Your task to perform on an android device: Clear all items from cart on target. Add "acer nitro" to the cart on target, then select checkout. Image 0: 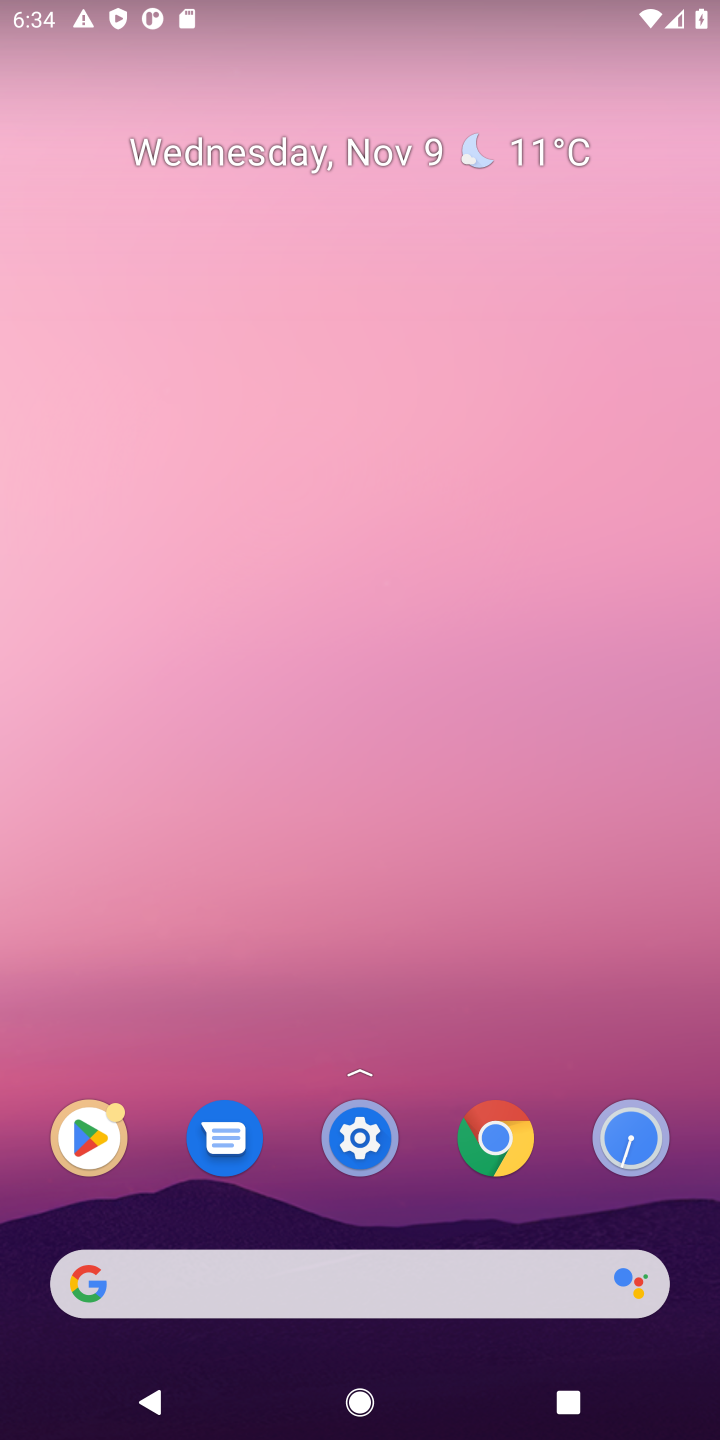
Step 0: drag from (267, 1234) to (269, 246)
Your task to perform on an android device: Clear all items from cart on target. Add "acer nitro" to the cart on target, then select checkout. Image 1: 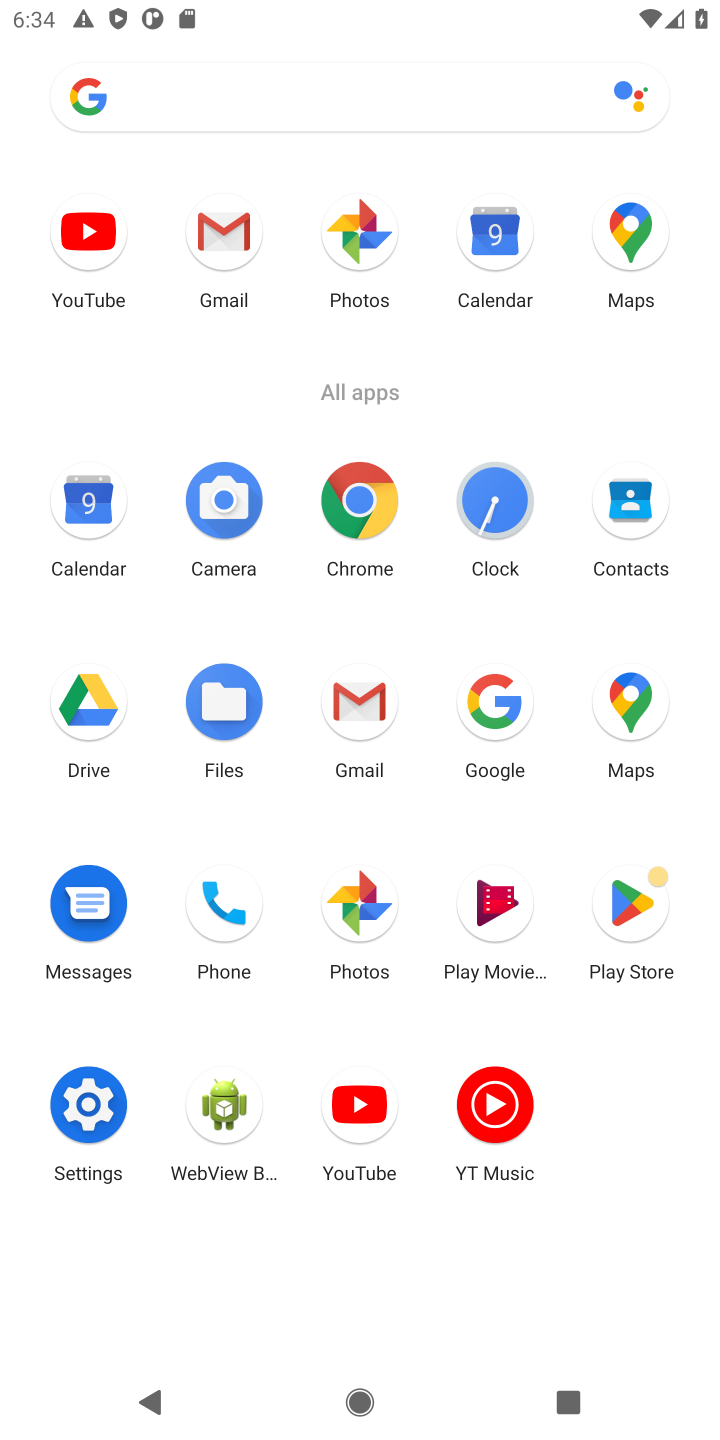
Step 1: click (376, 515)
Your task to perform on an android device: Clear all items from cart on target. Add "acer nitro" to the cart on target, then select checkout. Image 2: 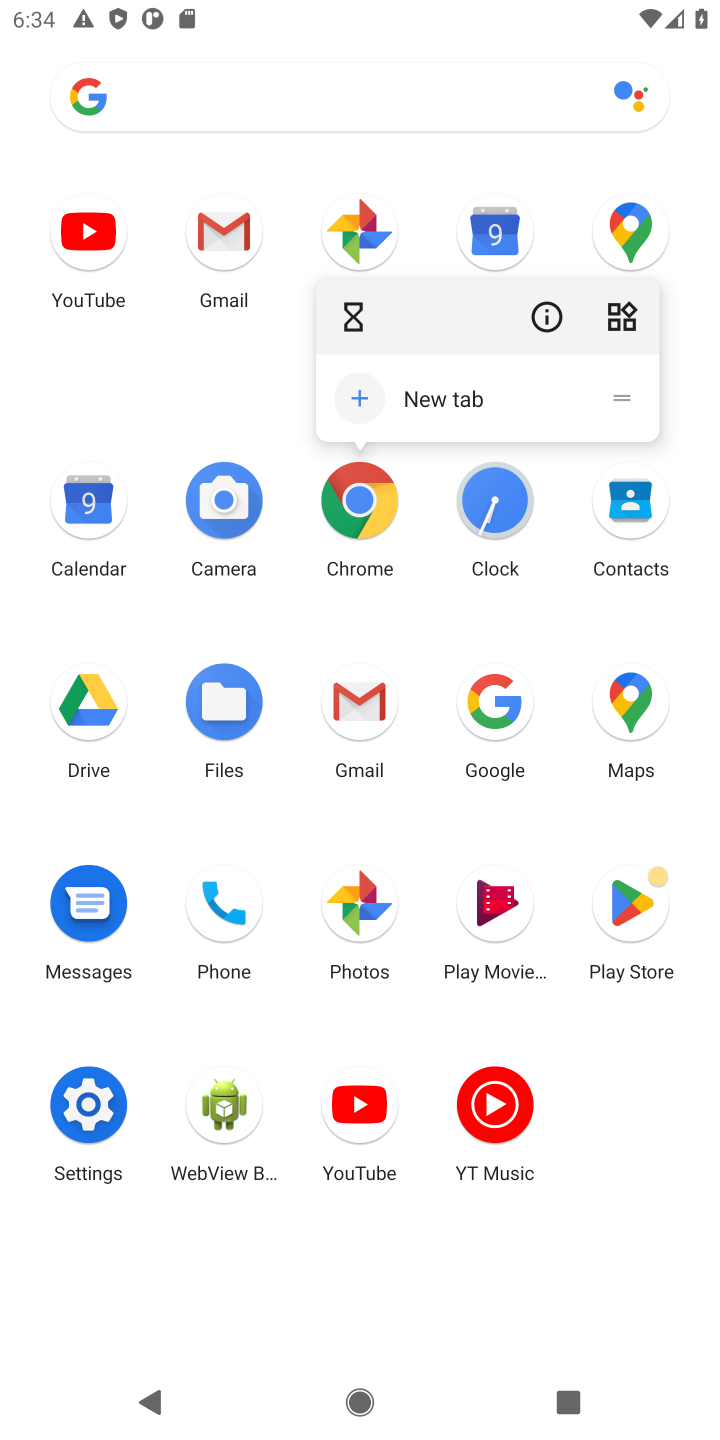
Step 2: click (376, 515)
Your task to perform on an android device: Clear all items from cart on target. Add "acer nitro" to the cart on target, then select checkout. Image 3: 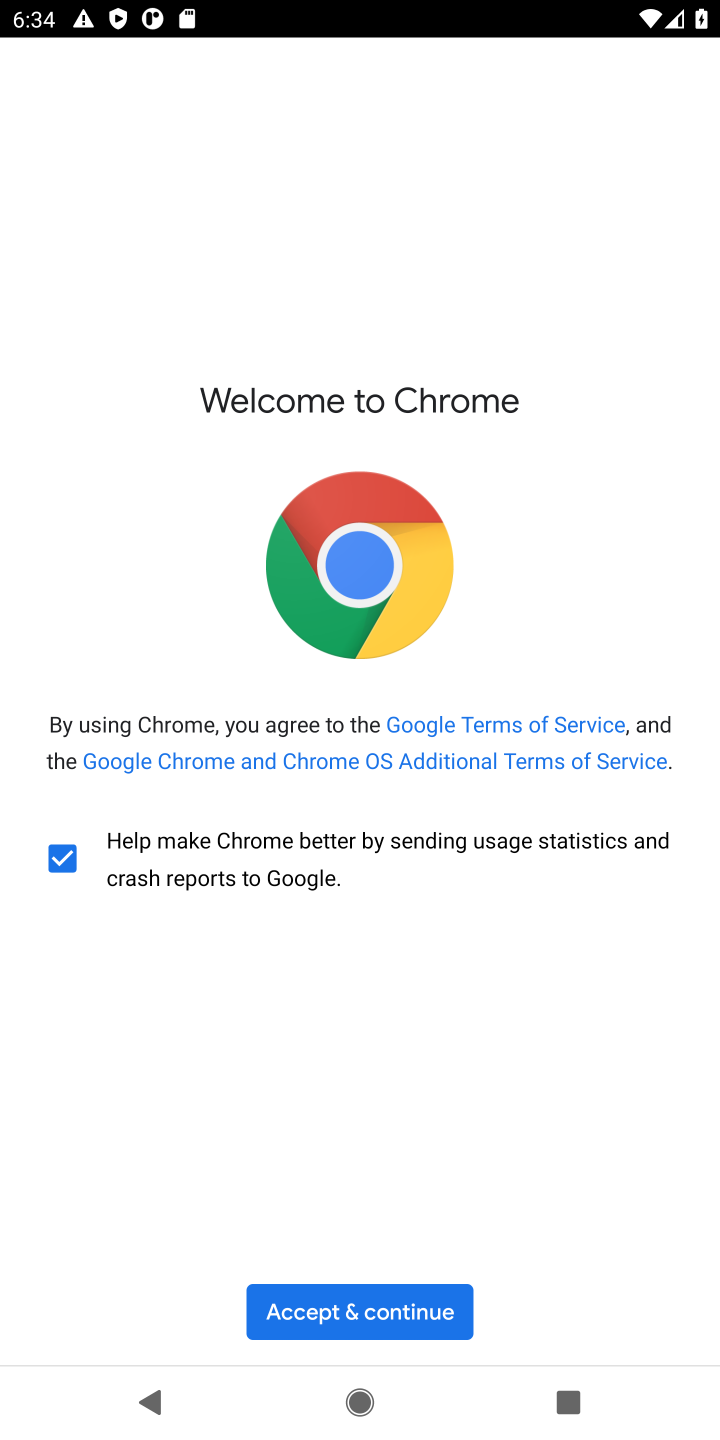
Step 3: click (396, 1314)
Your task to perform on an android device: Clear all items from cart on target. Add "acer nitro" to the cart on target, then select checkout. Image 4: 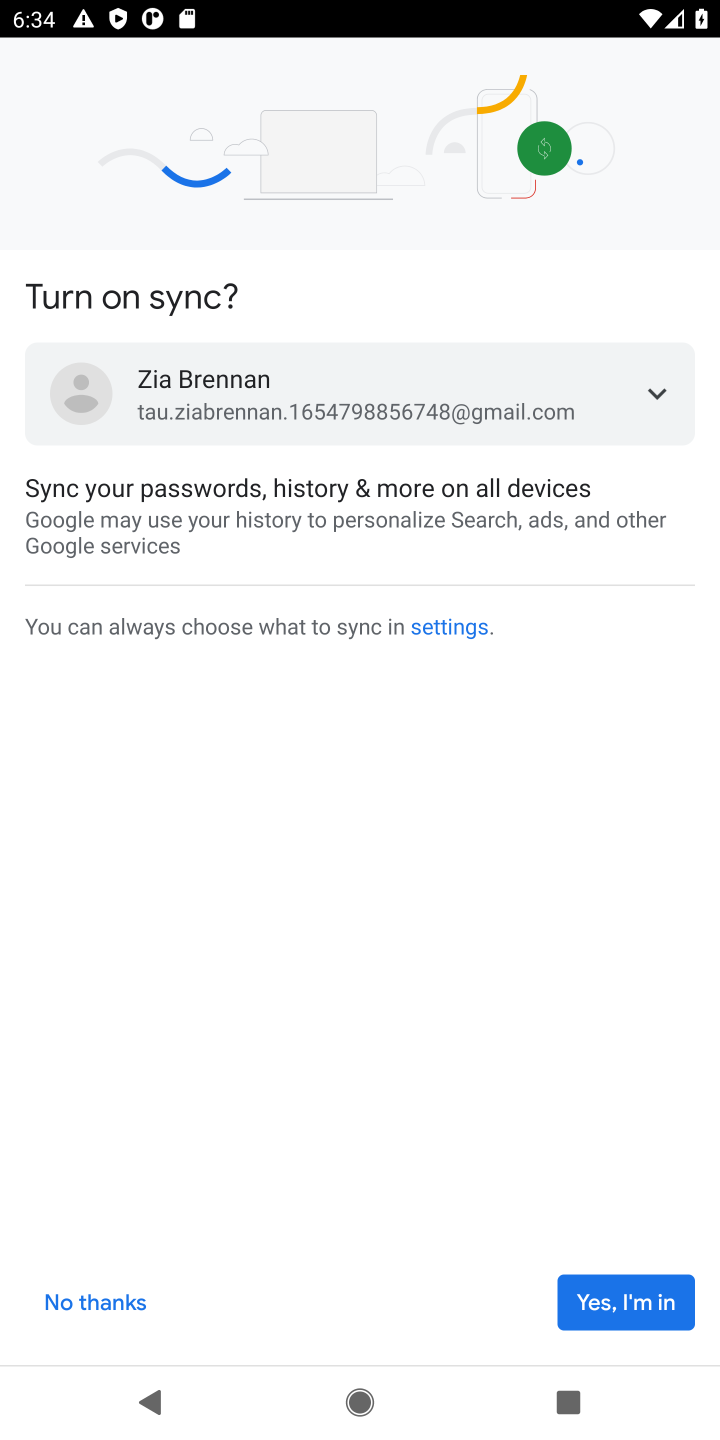
Step 4: click (629, 1288)
Your task to perform on an android device: Clear all items from cart on target. Add "acer nitro" to the cart on target, then select checkout. Image 5: 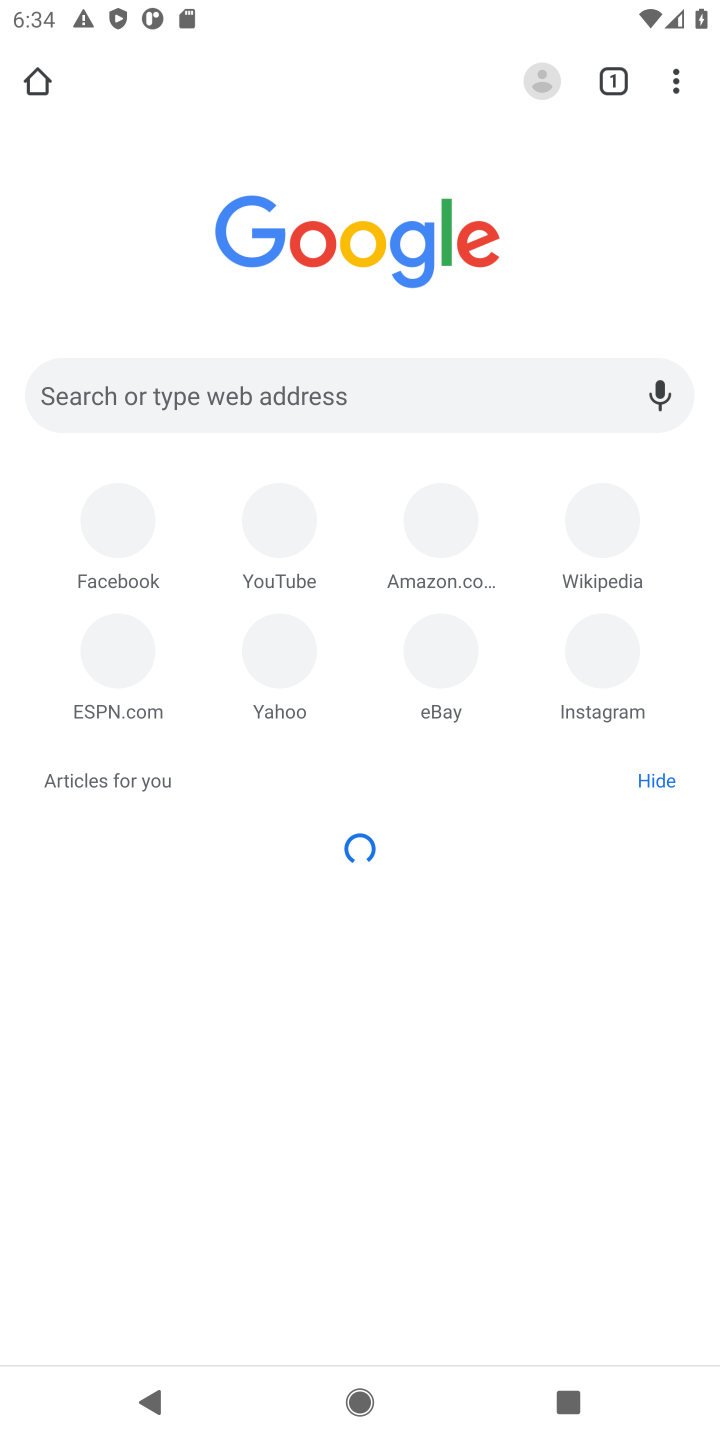
Step 5: click (186, 394)
Your task to perform on an android device: Clear all items from cart on target. Add "acer nitro" to the cart on target, then select checkout. Image 6: 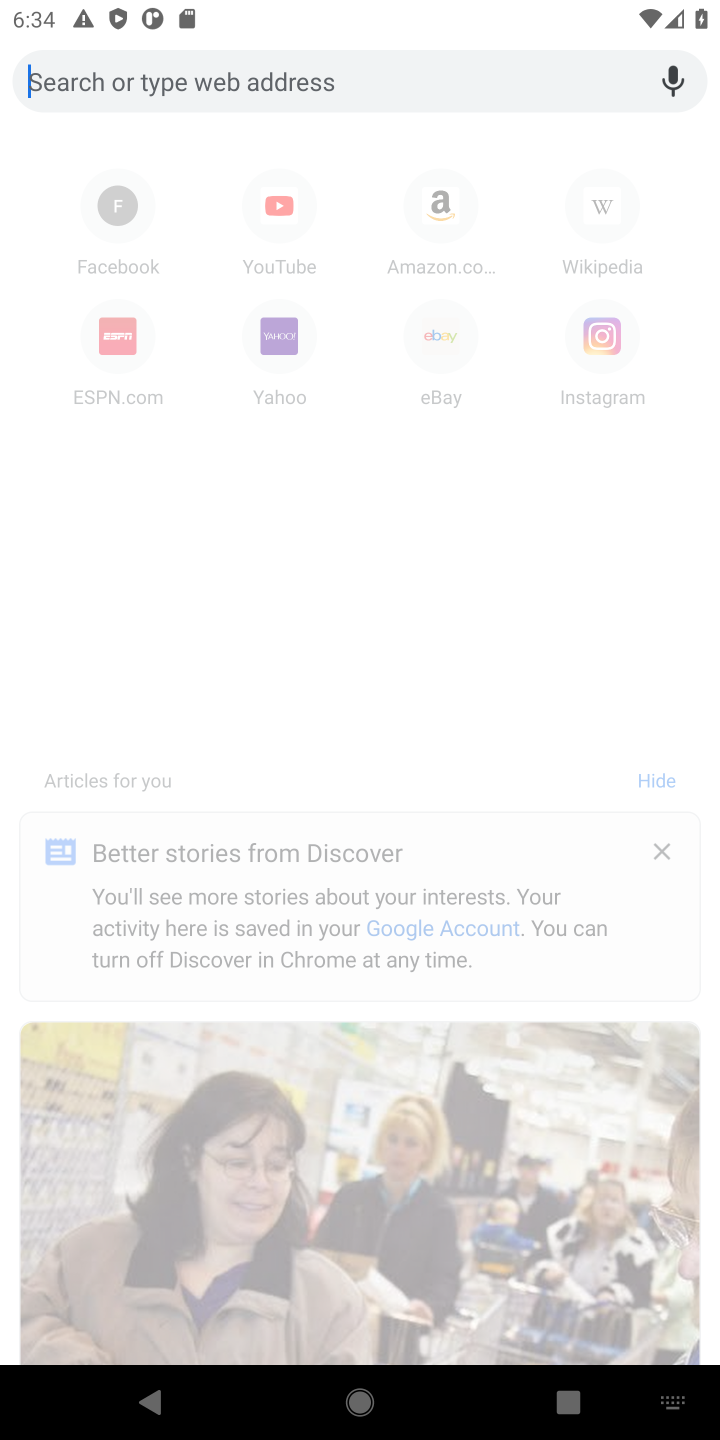
Step 6: type "target"
Your task to perform on an android device: Clear all items from cart on target. Add "acer nitro" to the cart on target, then select checkout. Image 7: 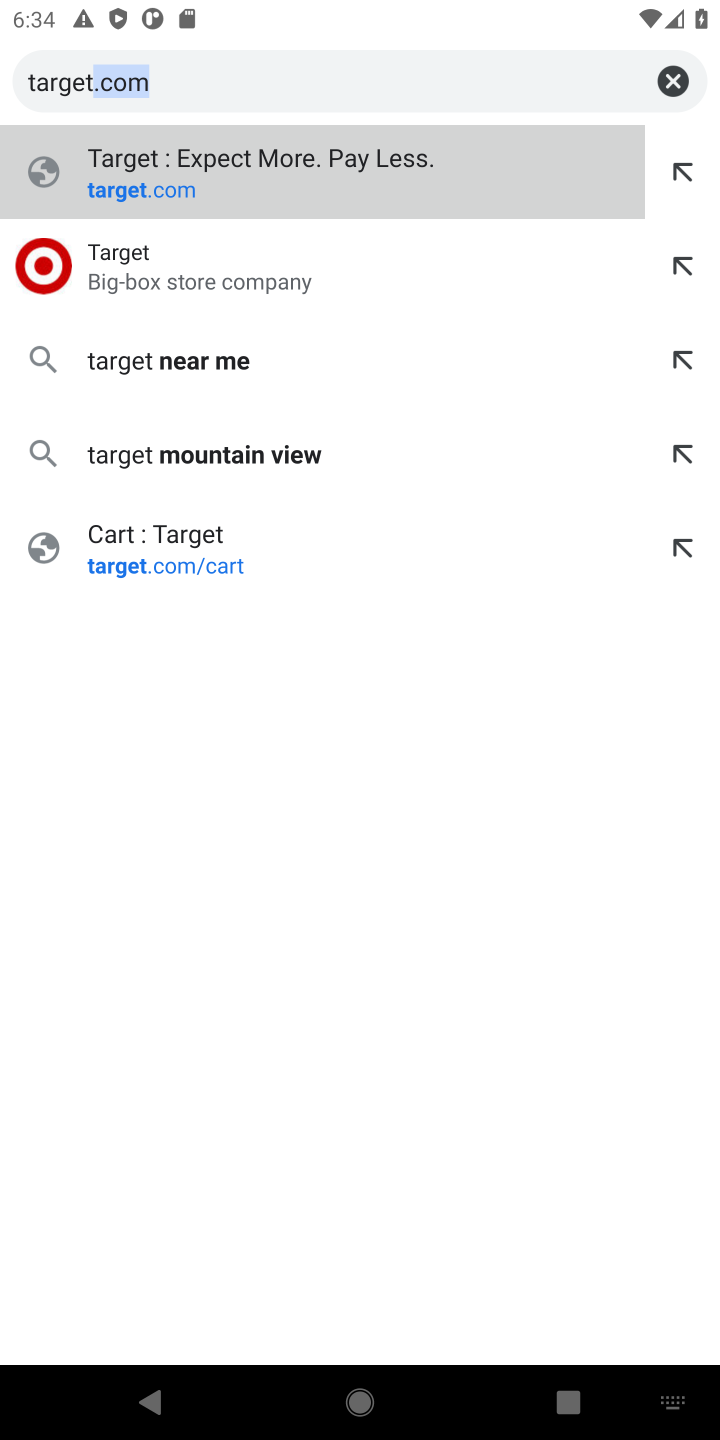
Step 7: press enter
Your task to perform on an android device: Clear all items from cart on target. Add "acer nitro" to the cart on target, then select checkout. Image 8: 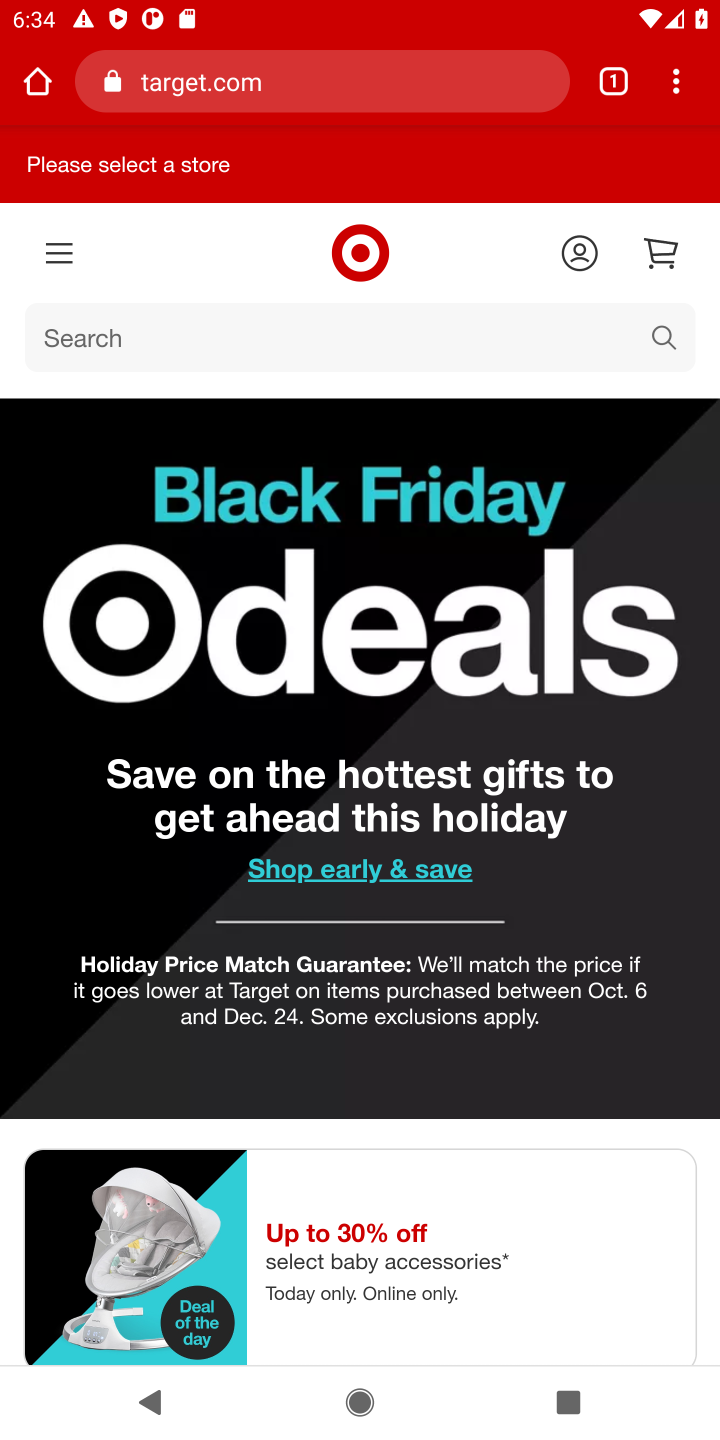
Step 8: click (147, 320)
Your task to perform on an android device: Clear all items from cart on target. Add "acer nitro" to the cart on target, then select checkout. Image 9: 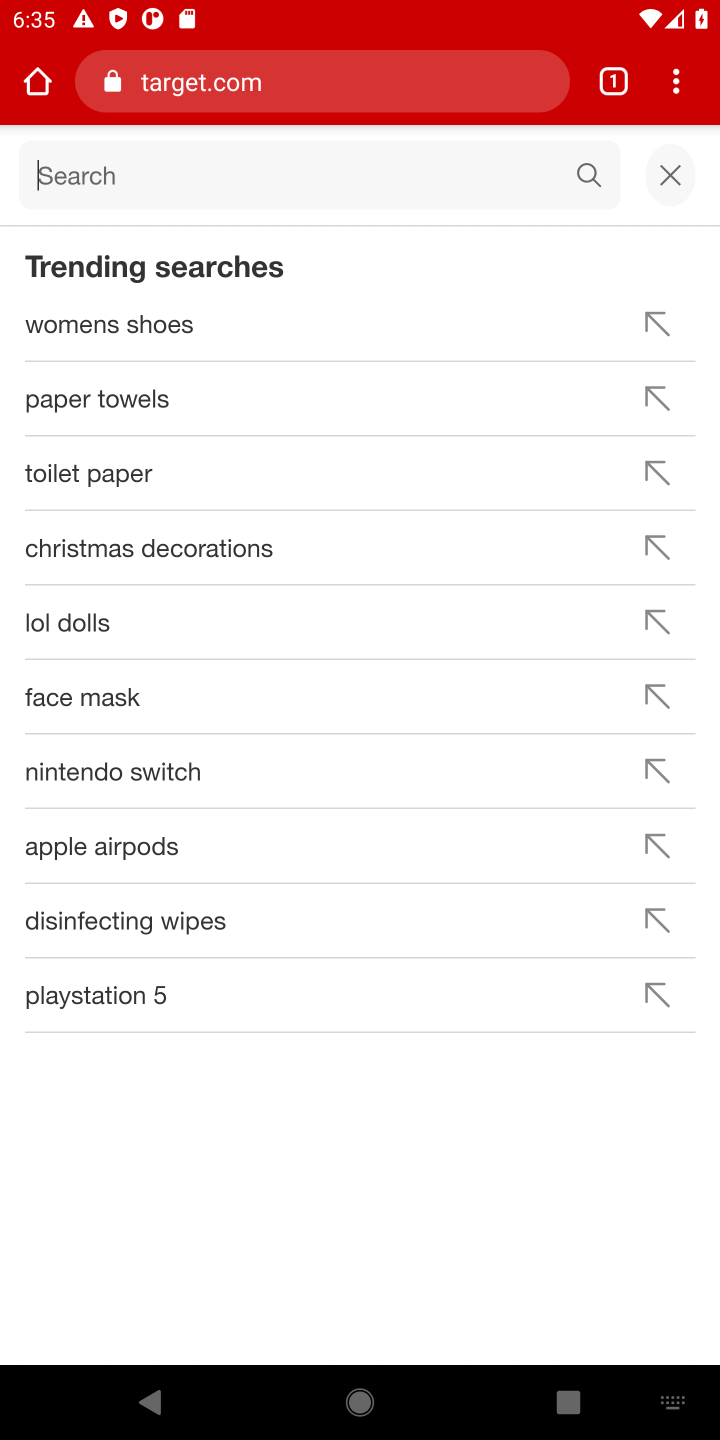
Step 9: type "acer nitro"
Your task to perform on an android device: Clear all items from cart on target. Add "acer nitro" to the cart on target, then select checkout. Image 10: 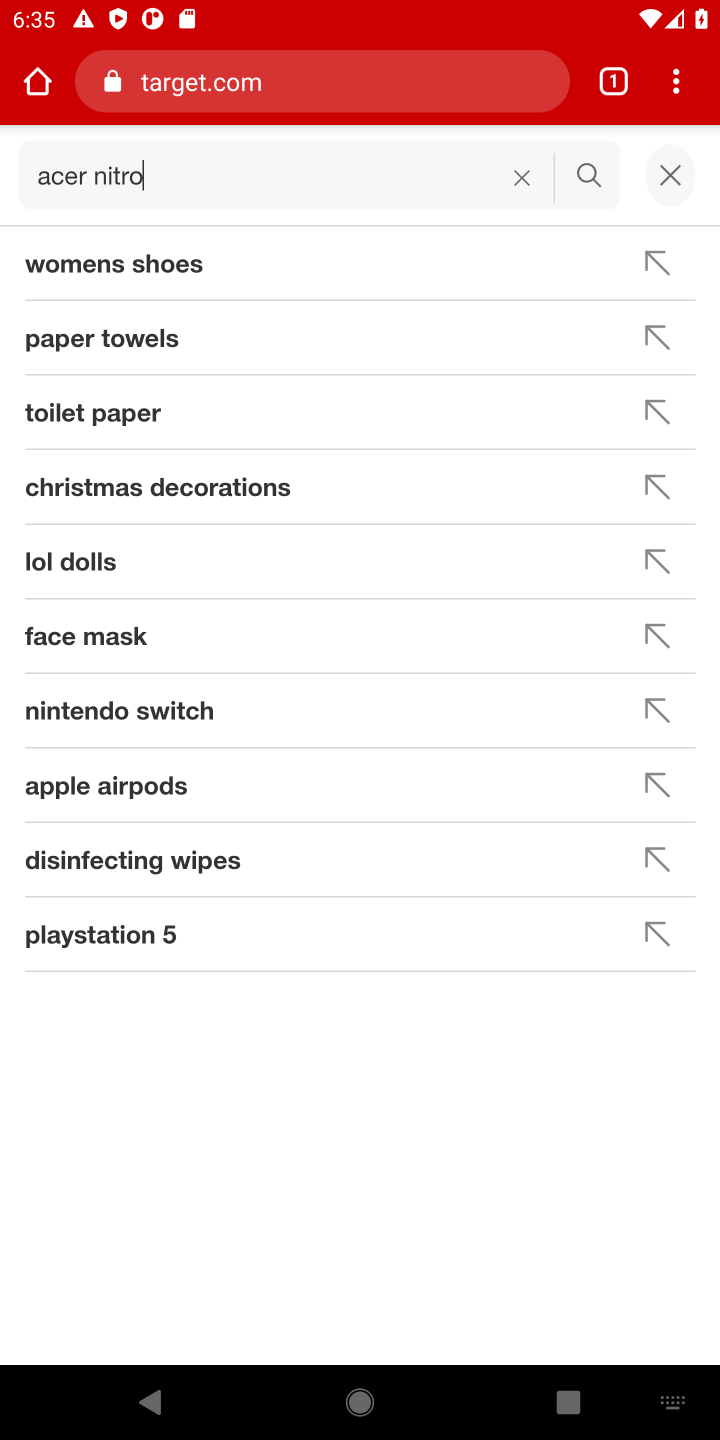
Step 10: press enter
Your task to perform on an android device: Clear all items from cart on target. Add "acer nitro" to the cart on target, then select checkout. Image 11: 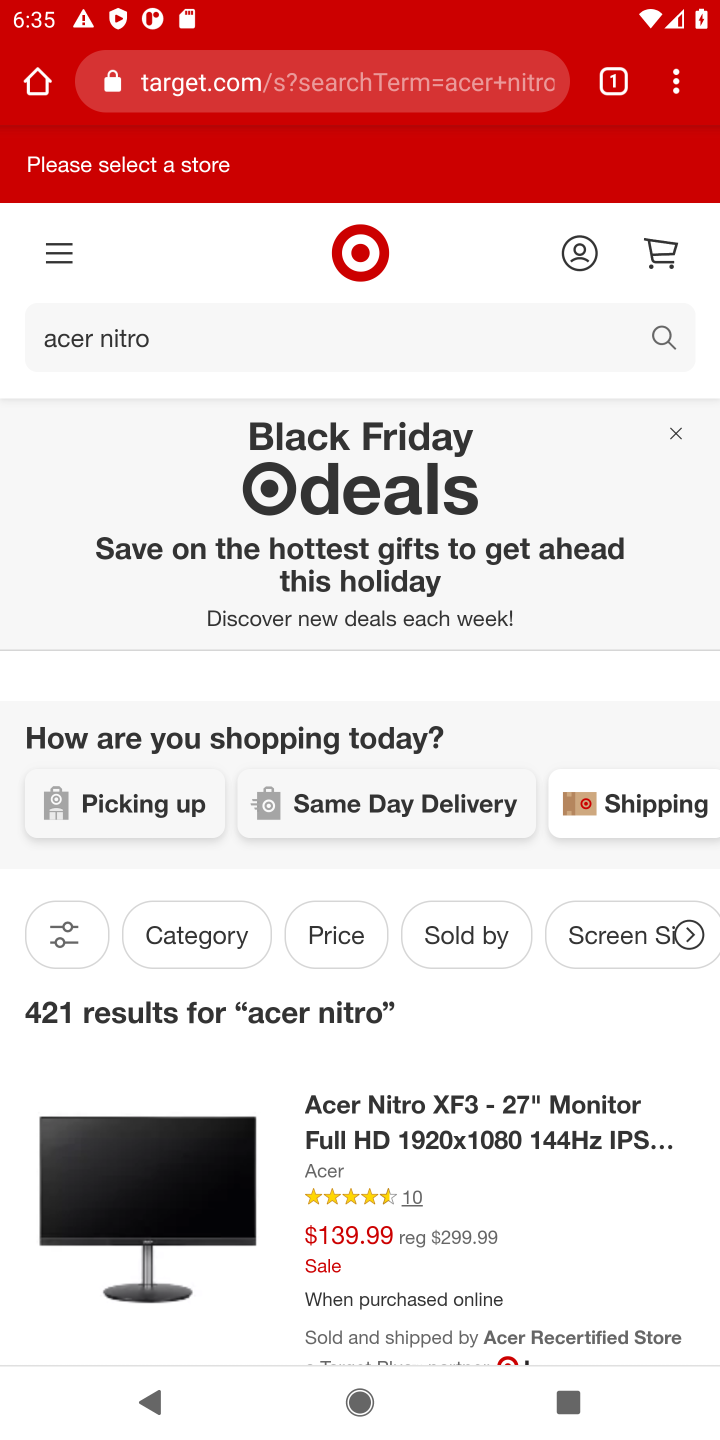
Step 11: drag from (490, 954) to (606, 399)
Your task to perform on an android device: Clear all items from cart on target. Add "acer nitro" to the cart on target, then select checkout. Image 12: 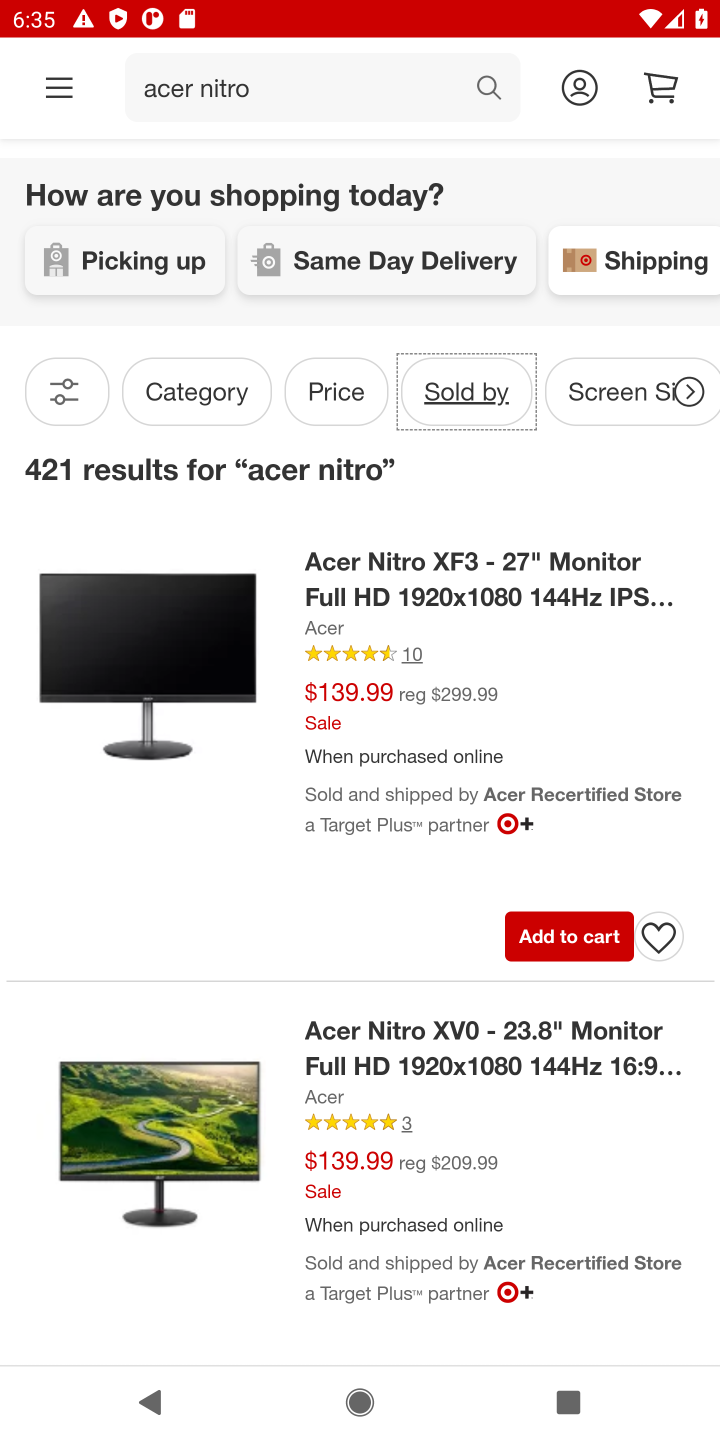
Step 12: click (392, 574)
Your task to perform on an android device: Clear all items from cart on target. Add "acer nitro" to the cart on target, then select checkout. Image 13: 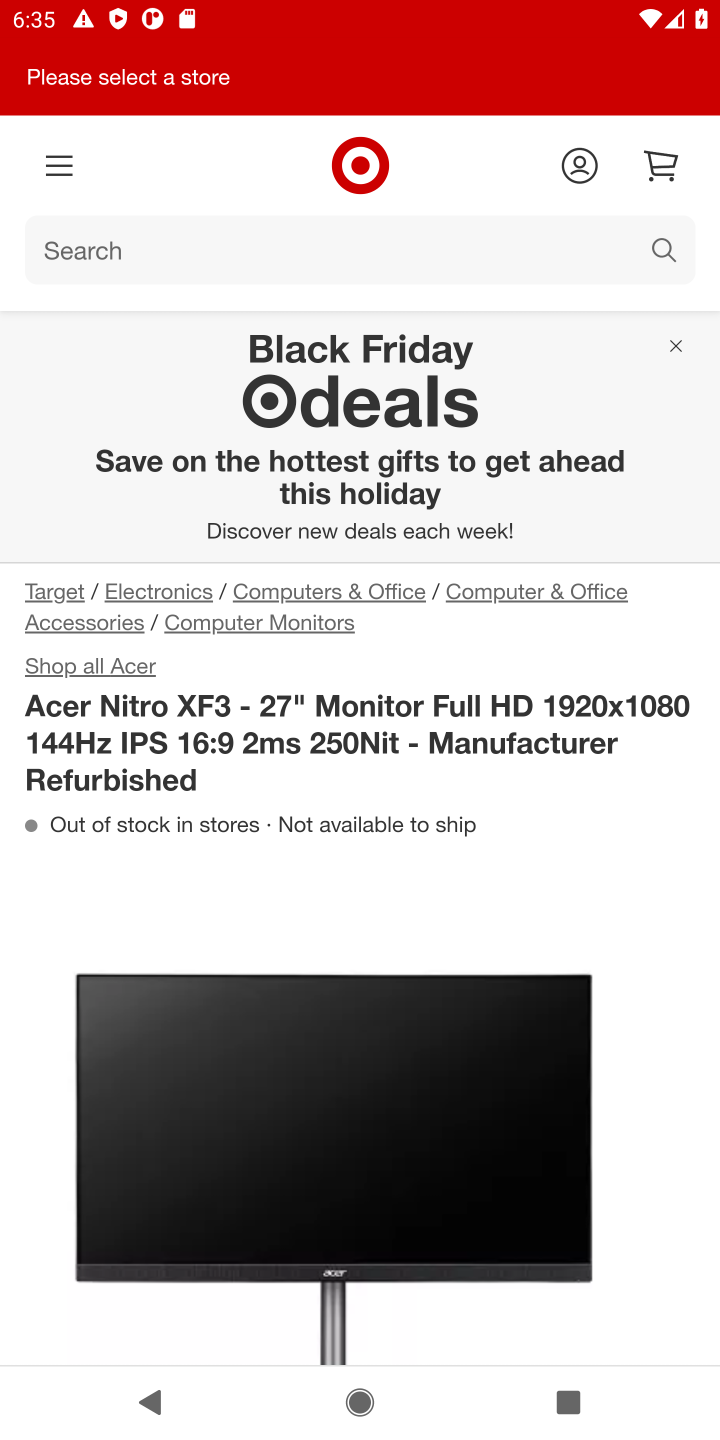
Step 13: drag from (539, 740) to (539, 370)
Your task to perform on an android device: Clear all items from cart on target. Add "acer nitro" to the cart on target, then select checkout. Image 14: 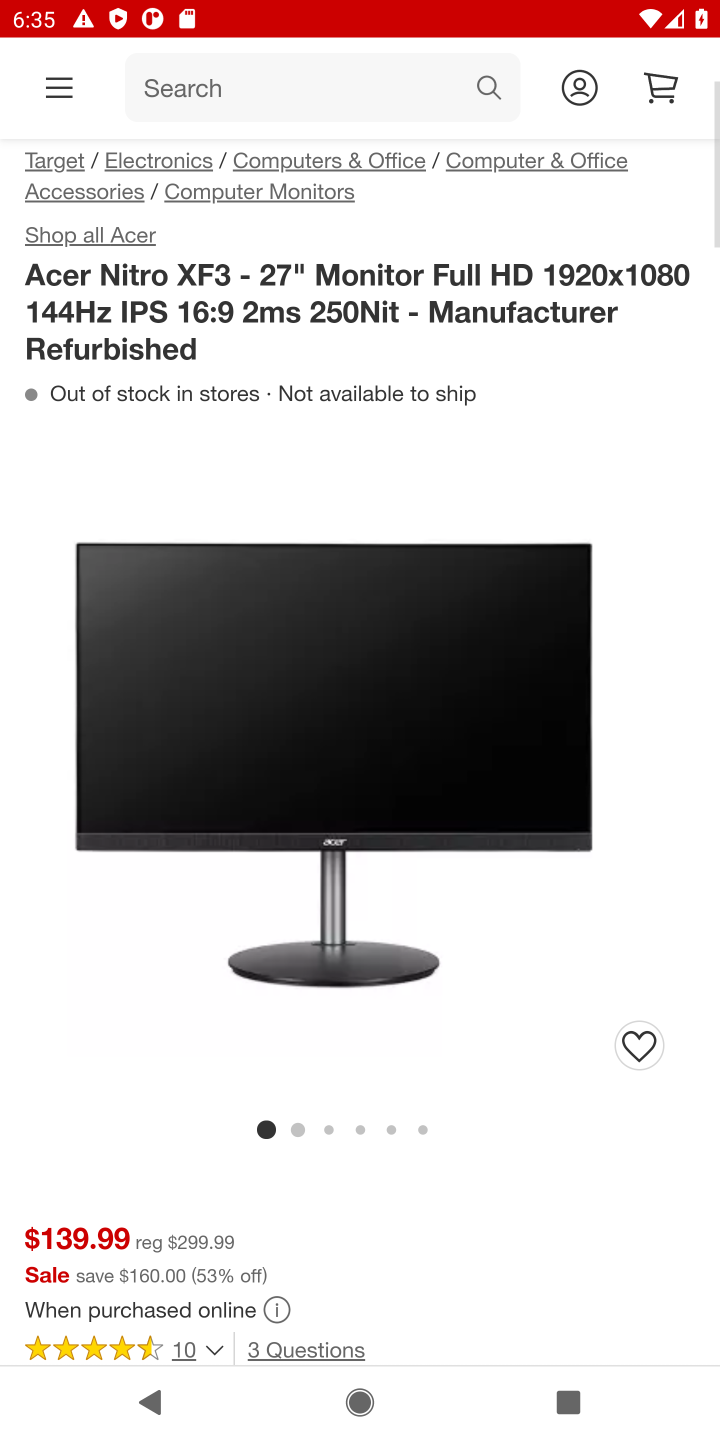
Step 14: drag from (455, 903) to (516, 342)
Your task to perform on an android device: Clear all items from cart on target. Add "acer nitro" to the cart on target, then select checkout. Image 15: 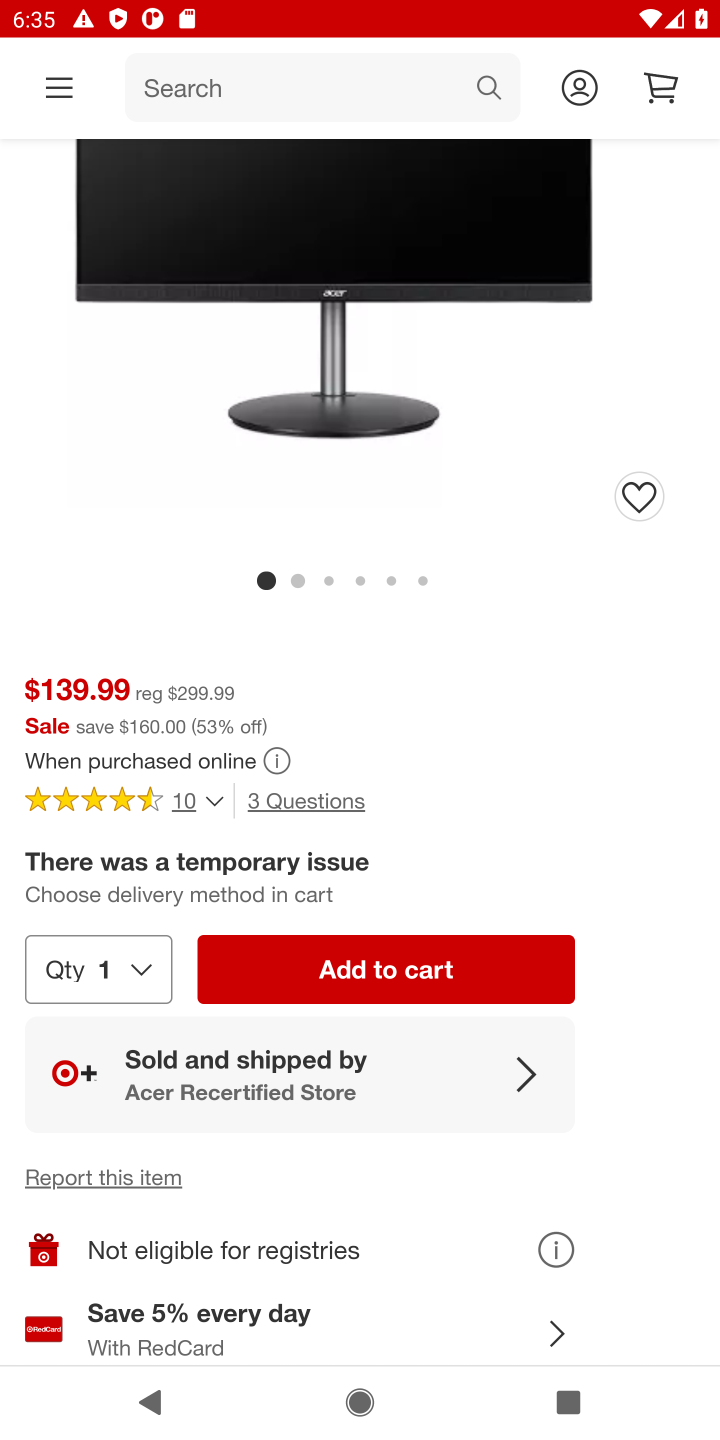
Step 15: click (418, 986)
Your task to perform on an android device: Clear all items from cart on target. Add "acer nitro" to the cart on target, then select checkout. Image 16: 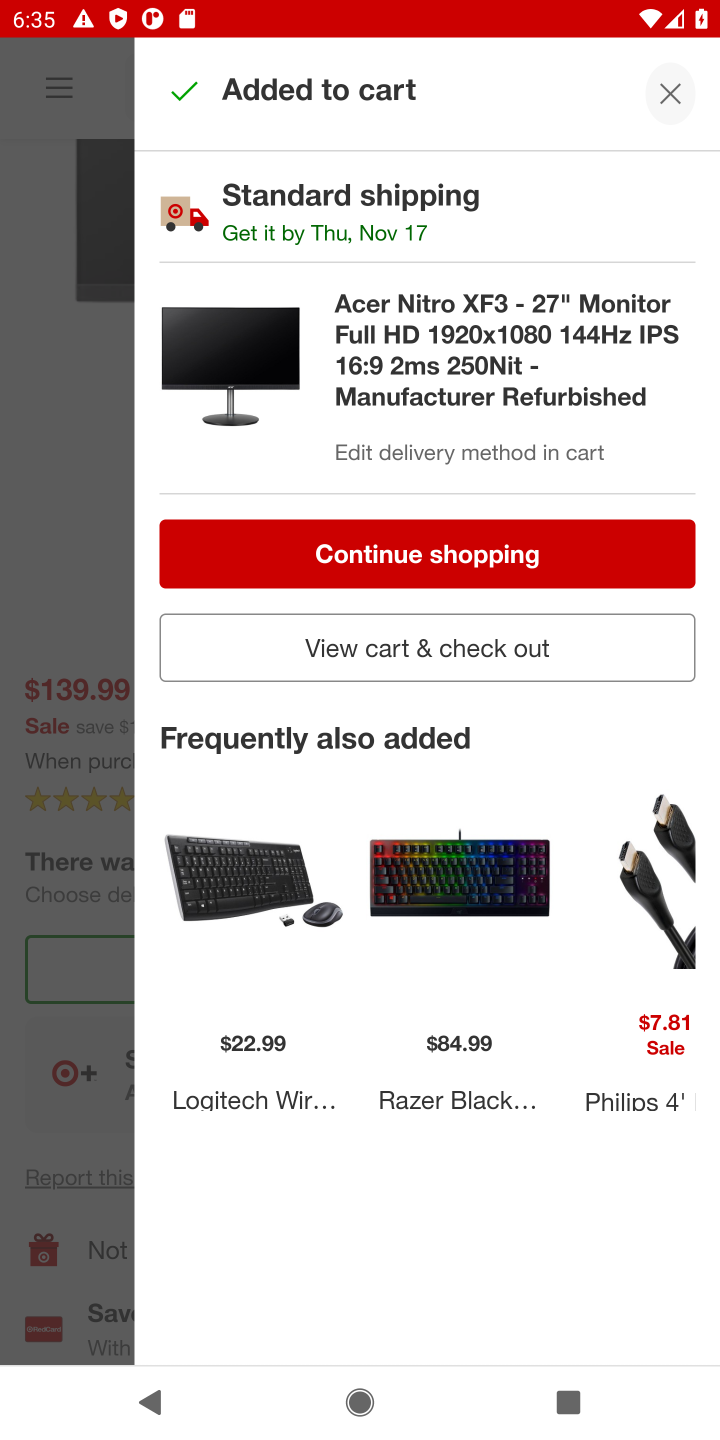
Step 16: click (430, 648)
Your task to perform on an android device: Clear all items from cart on target. Add "acer nitro" to the cart on target, then select checkout. Image 17: 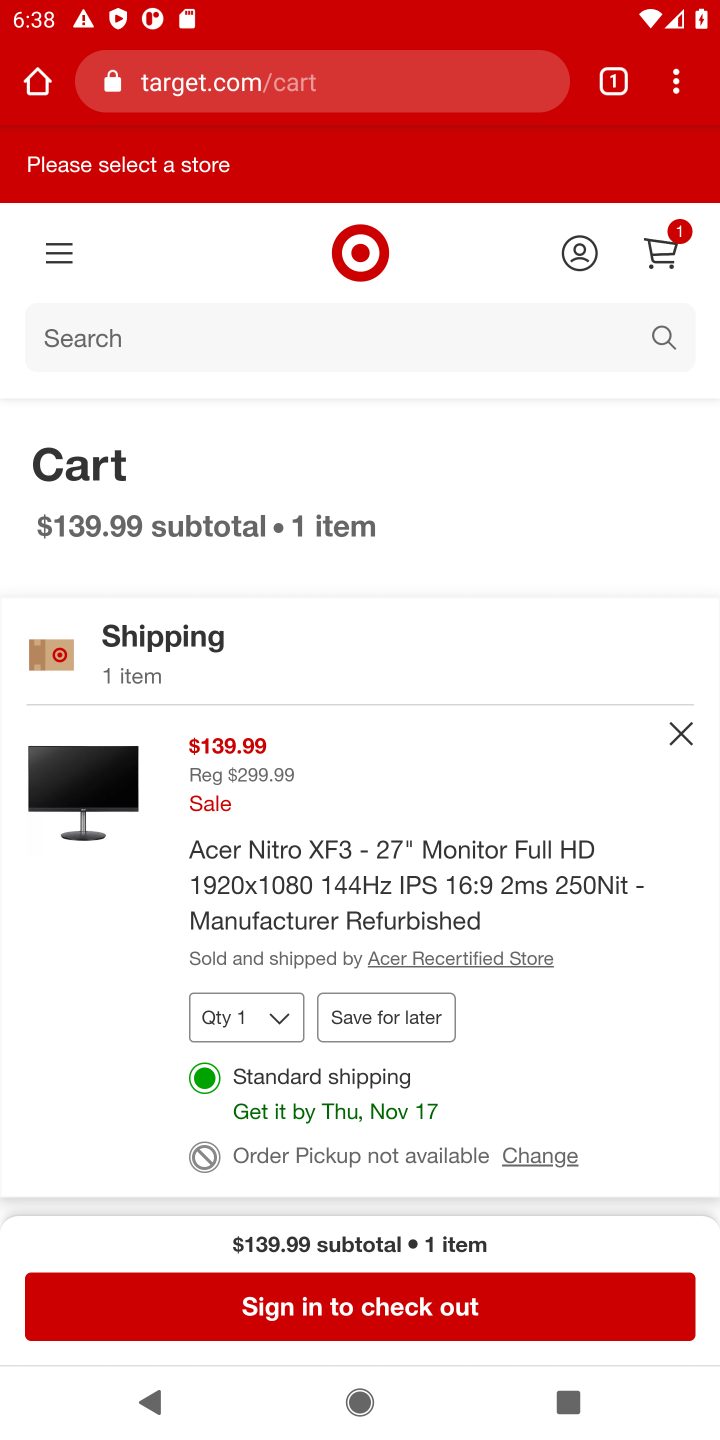
Step 17: task complete